Your task to perform on an android device: turn notification dots on Image 0: 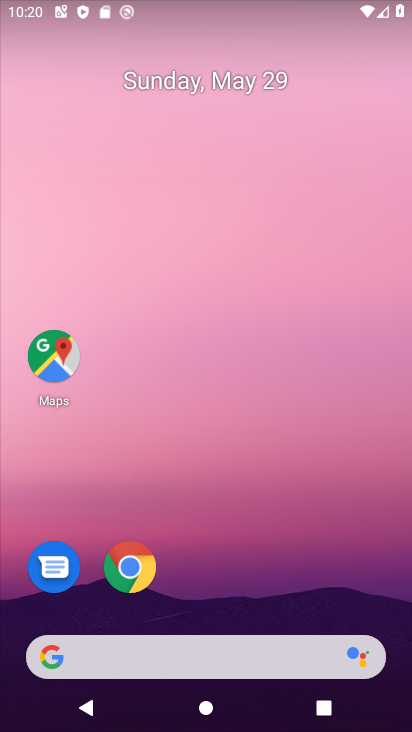
Step 0: drag from (393, 628) to (331, 45)
Your task to perform on an android device: turn notification dots on Image 1: 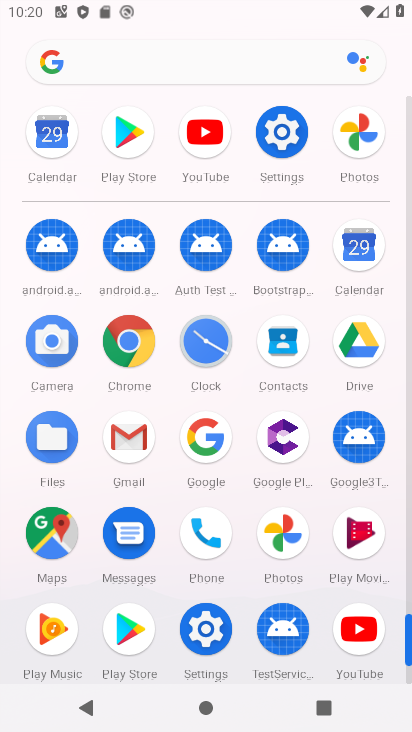
Step 1: click (205, 631)
Your task to perform on an android device: turn notification dots on Image 2: 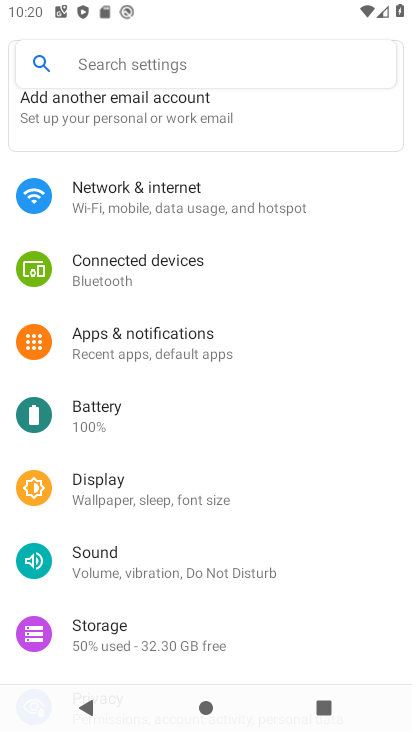
Step 2: click (153, 334)
Your task to perform on an android device: turn notification dots on Image 3: 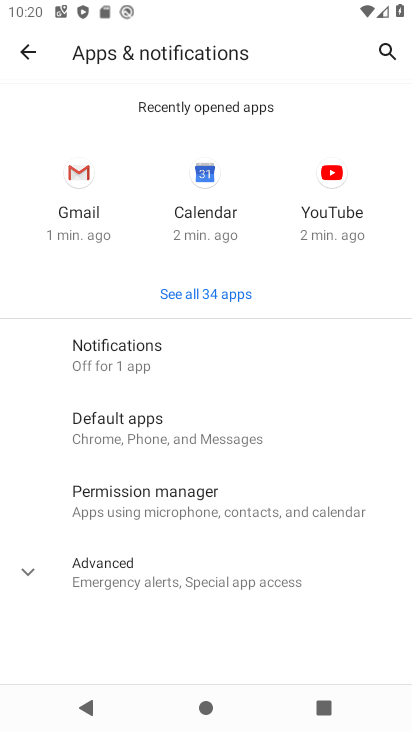
Step 3: click (135, 368)
Your task to perform on an android device: turn notification dots on Image 4: 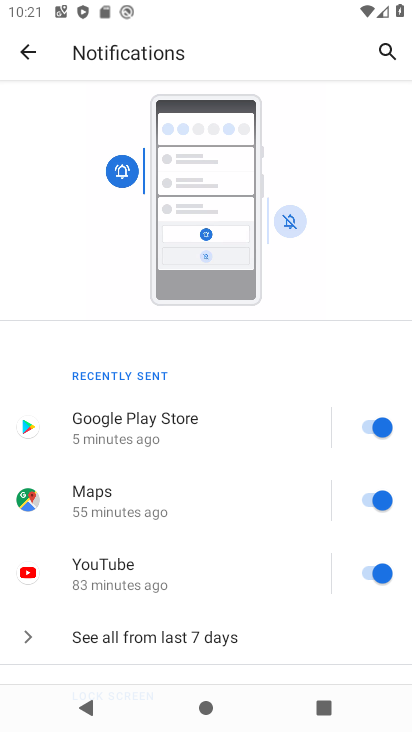
Step 4: drag from (226, 626) to (217, 156)
Your task to perform on an android device: turn notification dots on Image 5: 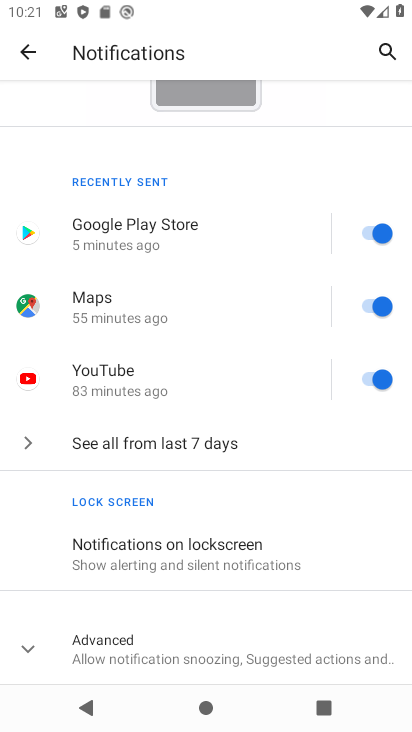
Step 5: click (64, 640)
Your task to perform on an android device: turn notification dots on Image 6: 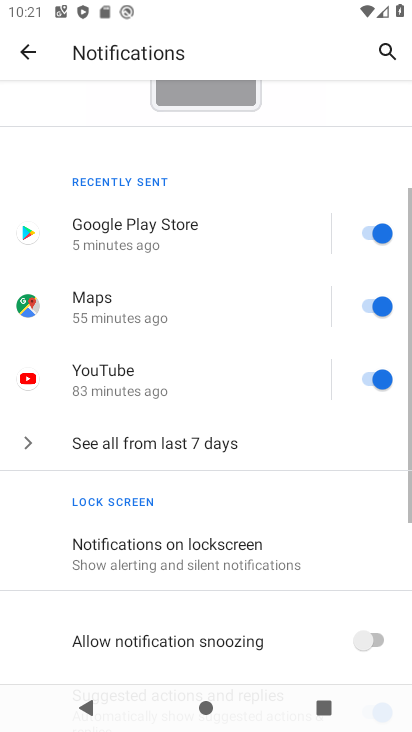
Step 6: drag from (283, 381) to (273, 283)
Your task to perform on an android device: turn notification dots on Image 7: 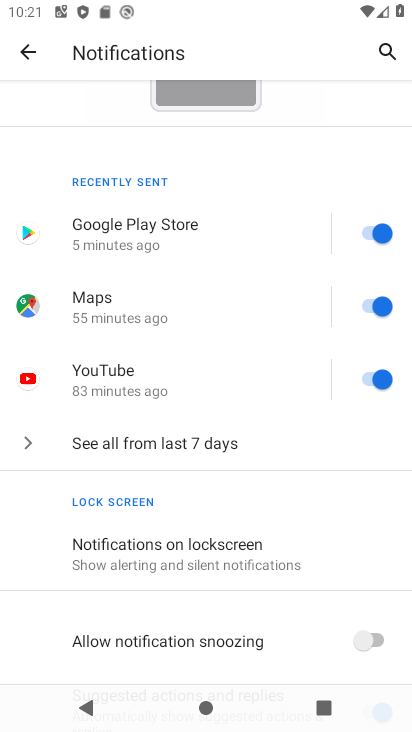
Step 7: drag from (301, 650) to (257, 238)
Your task to perform on an android device: turn notification dots on Image 8: 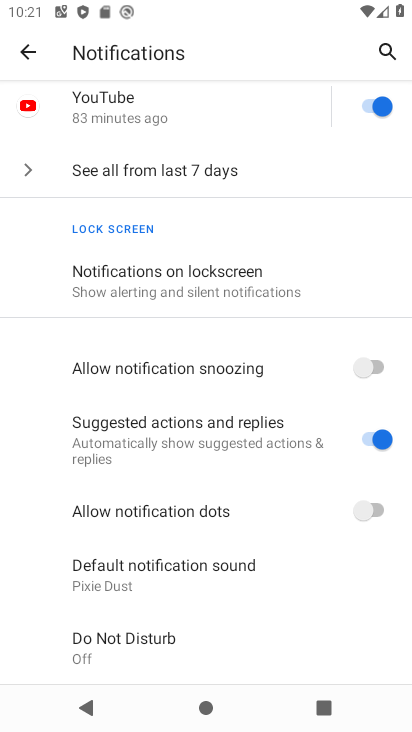
Step 8: click (379, 509)
Your task to perform on an android device: turn notification dots on Image 9: 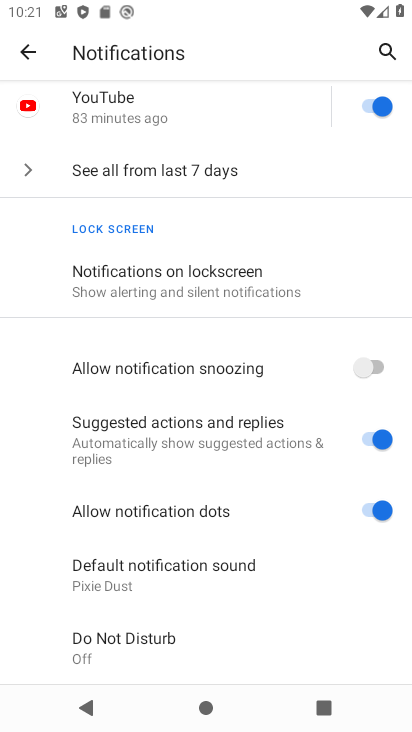
Step 9: task complete